Your task to perform on an android device: Go to wifi settings Image 0: 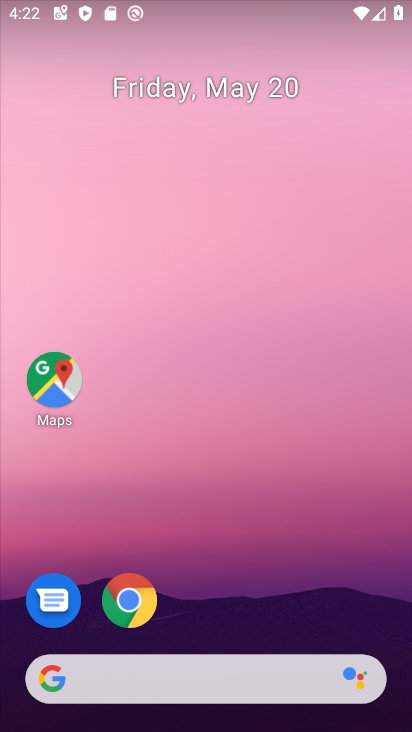
Step 0: drag from (267, 581) to (251, 7)
Your task to perform on an android device: Go to wifi settings Image 1: 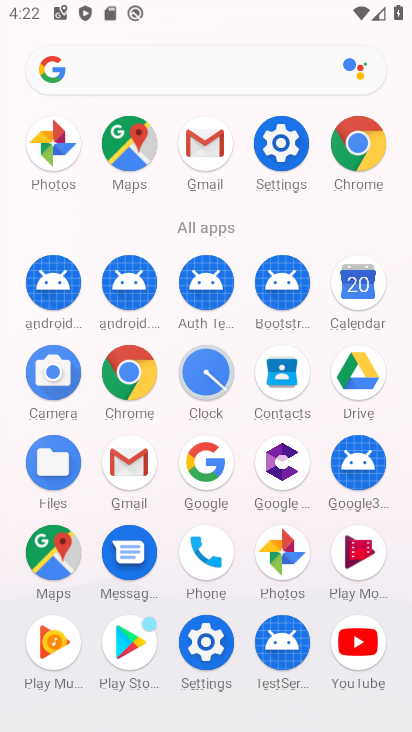
Step 1: click (281, 140)
Your task to perform on an android device: Go to wifi settings Image 2: 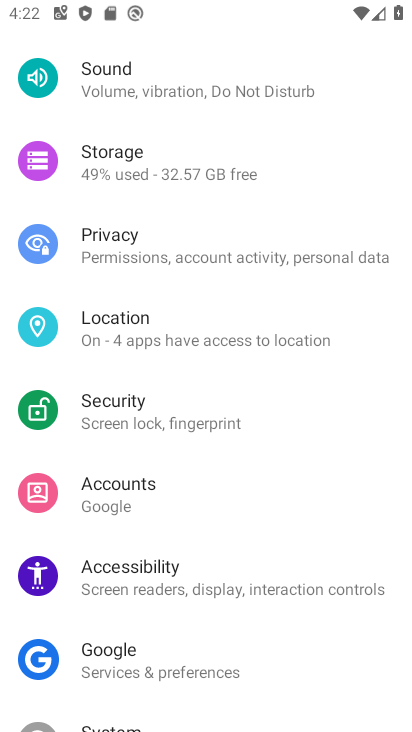
Step 2: drag from (275, 176) to (258, 567)
Your task to perform on an android device: Go to wifi settings Image 3: 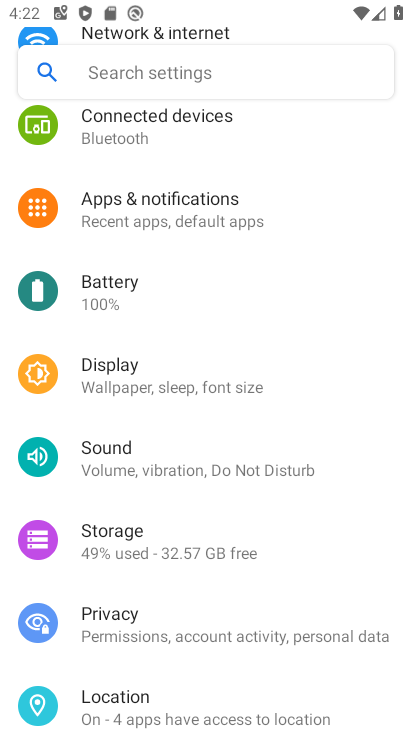
Step 3: drag from (215, 304) to (223, 588)
Your task to perform on an android device: Go to wifi settings Image 4: 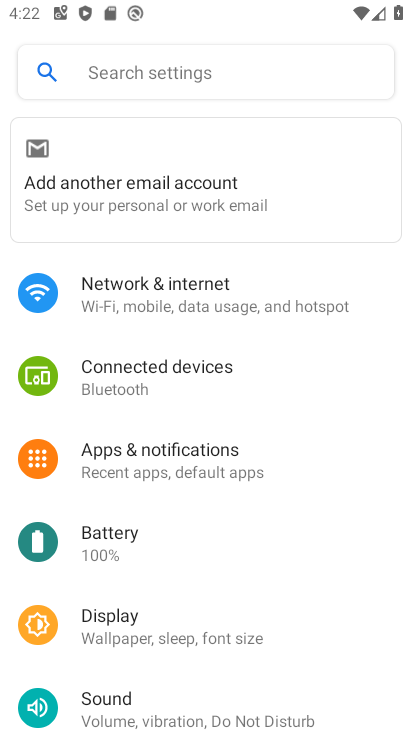
Step 4: click (197, 305)
Your task to perform on an android device: Go to wifi settings Image 5: 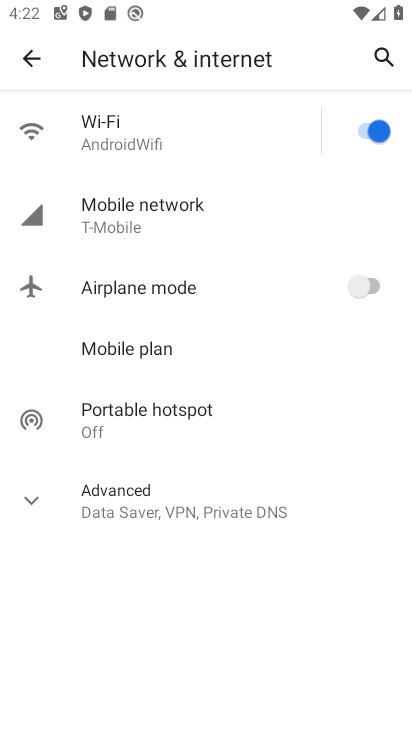
Step 5: click (158, 128)
Your task to perform on an android device: Go to wifi settings Image 6: 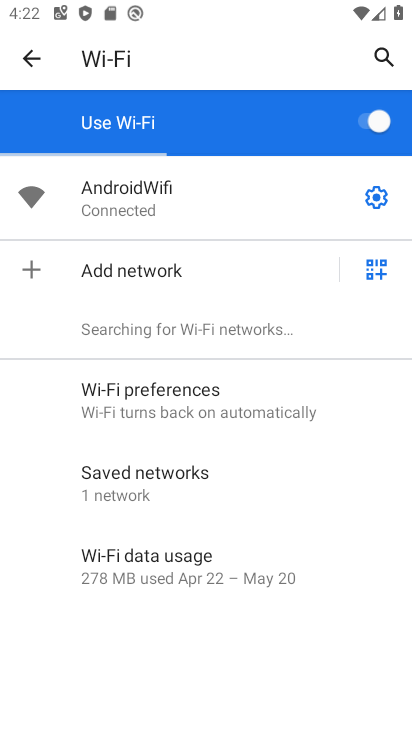
Step 6: task complete